Your task to perform on an android device: Add "macbook pro 15 inch" to the cart on target.com, then select checkout. Image 0: 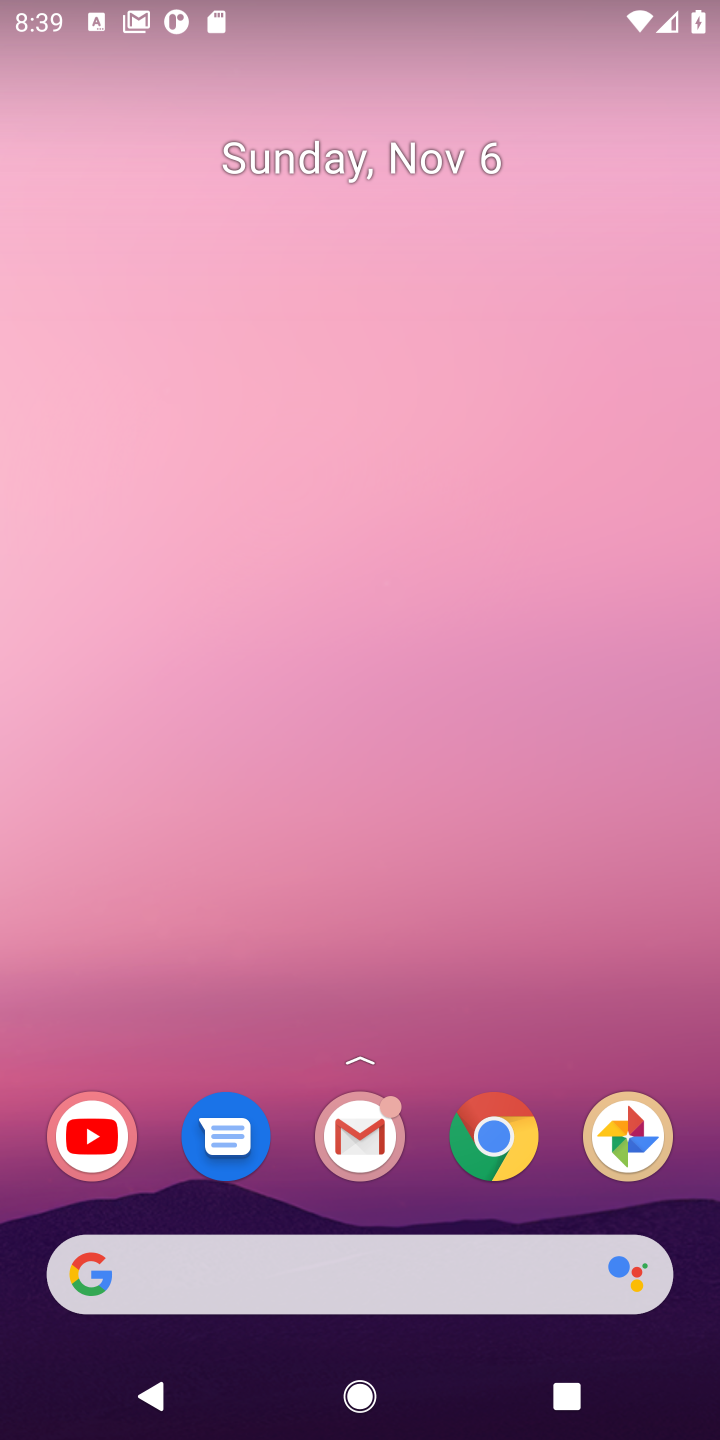
Step 0: click (410, 1266)
Your task to perform on an android device: Add "macbook pro 15 inch" to the cart on target.com, then select checkout. Image 1: 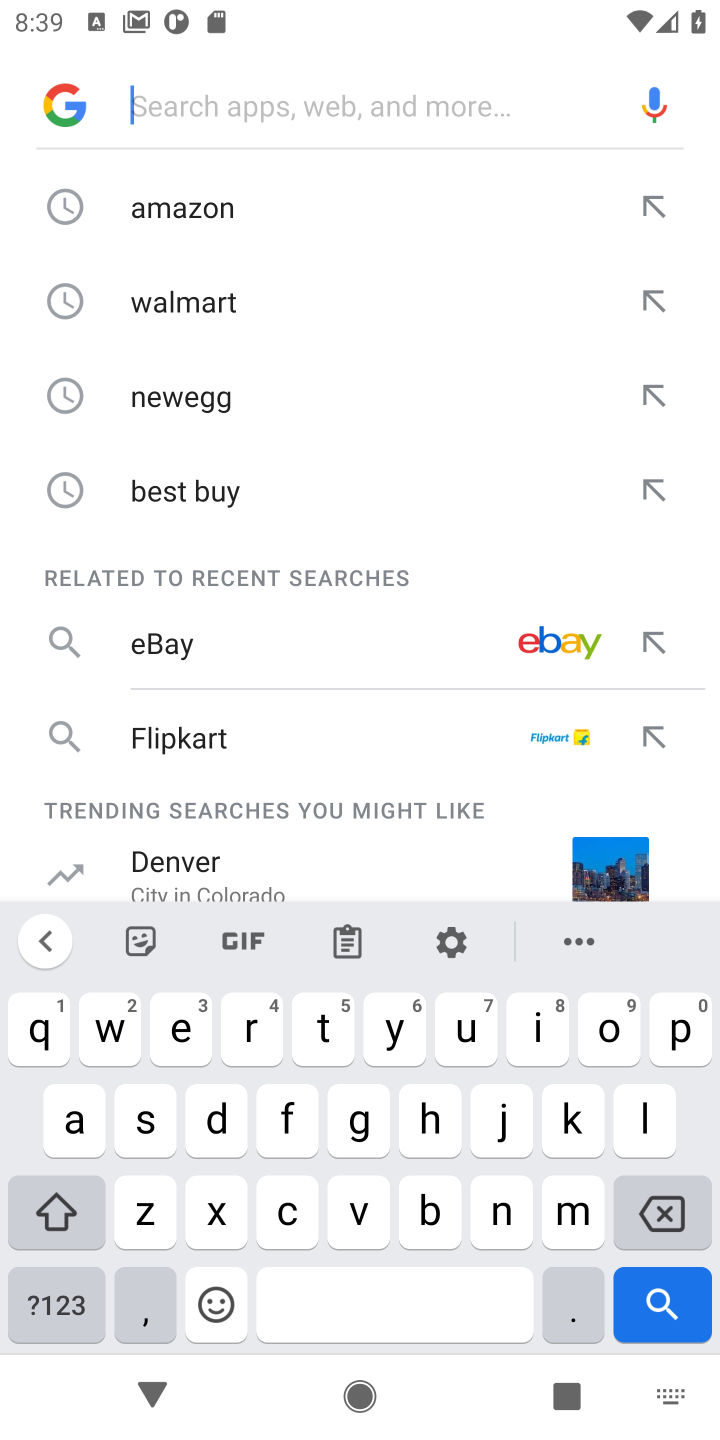
Step 1: type "target"
Your task to perform on an android device: Add "macbook pro 15 inch" to the cart on target.com, then select checkout. Image 2: 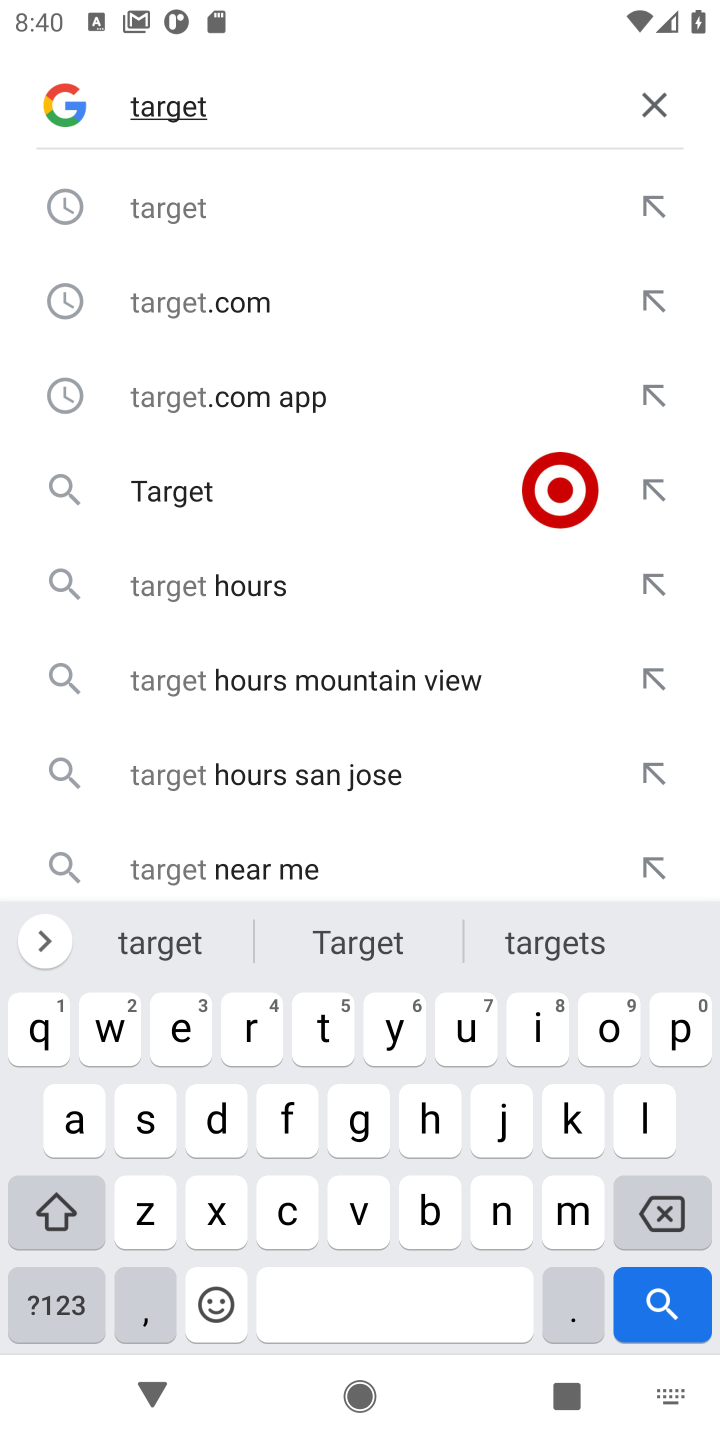
Step 2: click (216, 231)
Your task to perform on an android device: Add "macbook pro 15 inch" to the cart on target.com, then select checkout. Image 3: 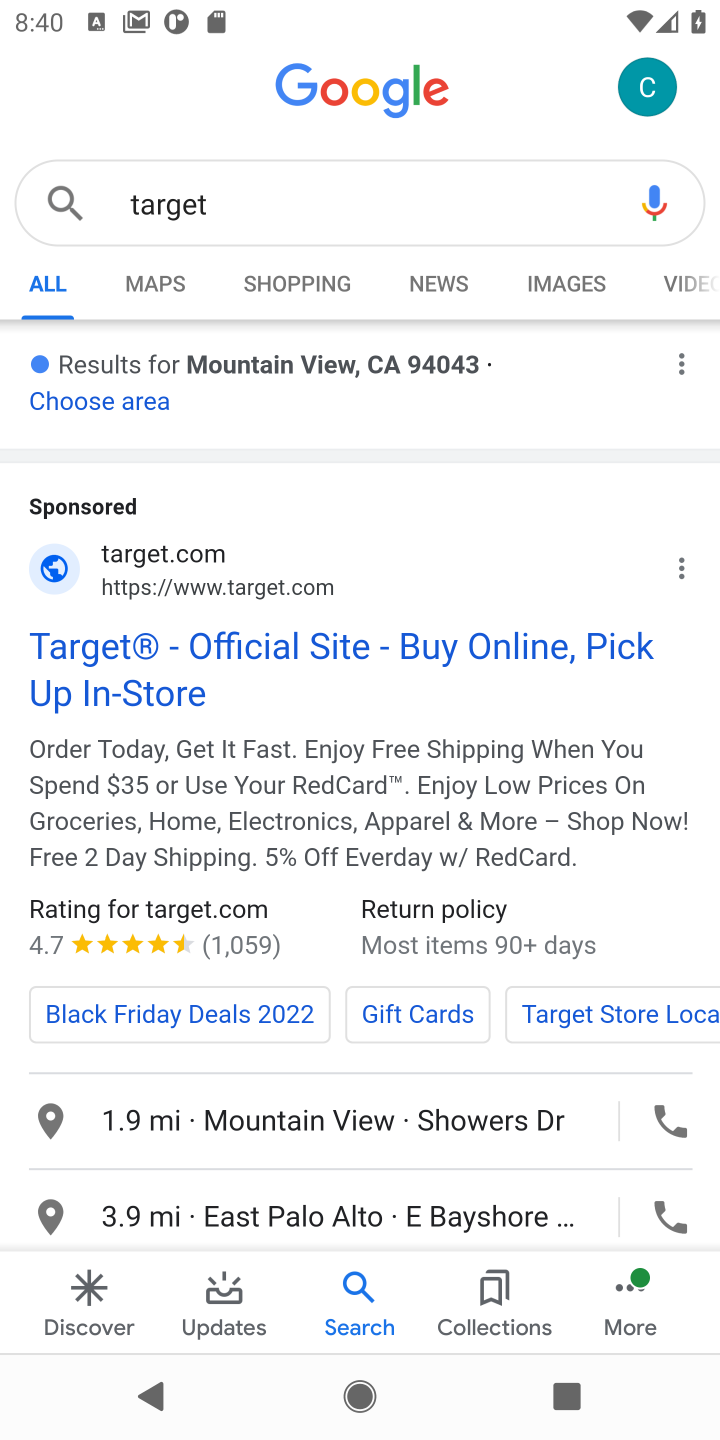
Step 3: click (238, 661)
Your task to perform on an android device: Add "macbook pro 15 inch" to the cart on target.com, then select checkout. Image 4: 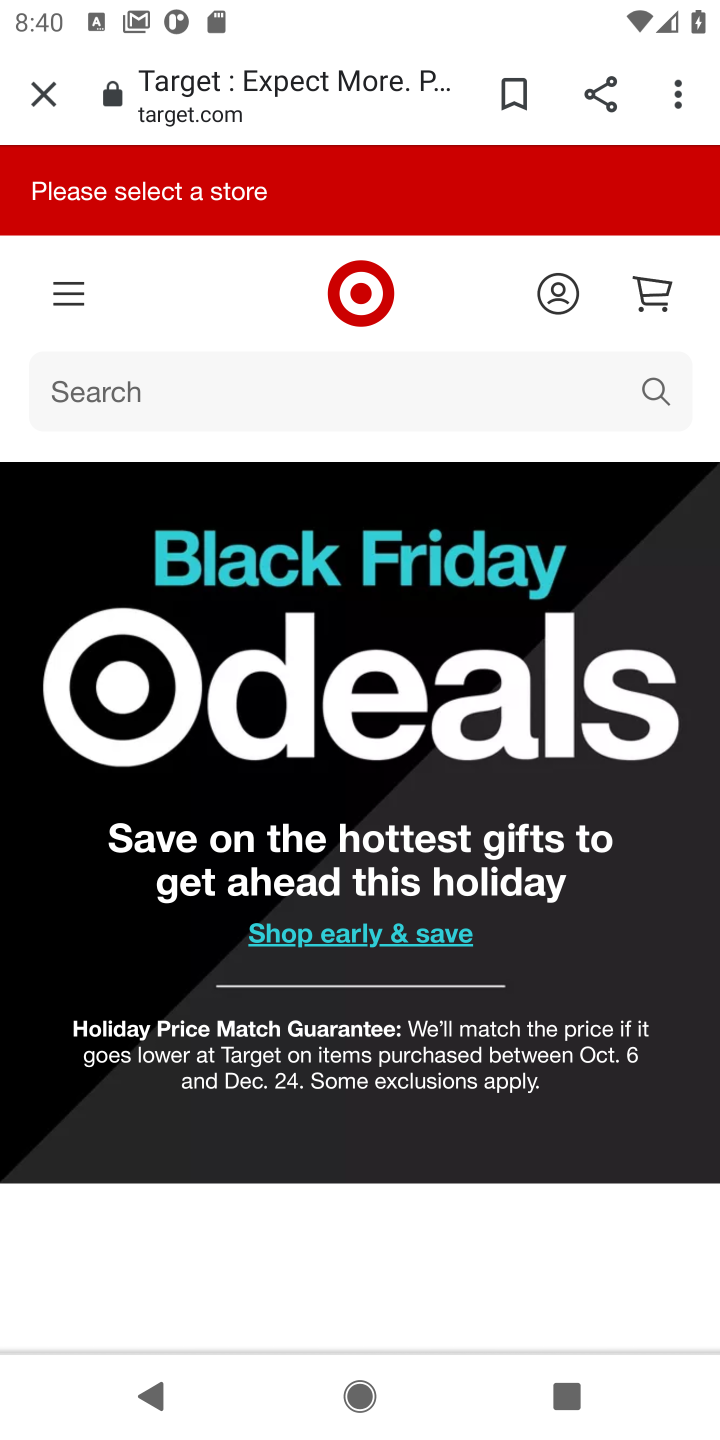
Step 4: click (417, 421)
Your task to perform on an android device: Add "macbook pro 15 inch" to the cart on target.com, then select checkout. Image 5: 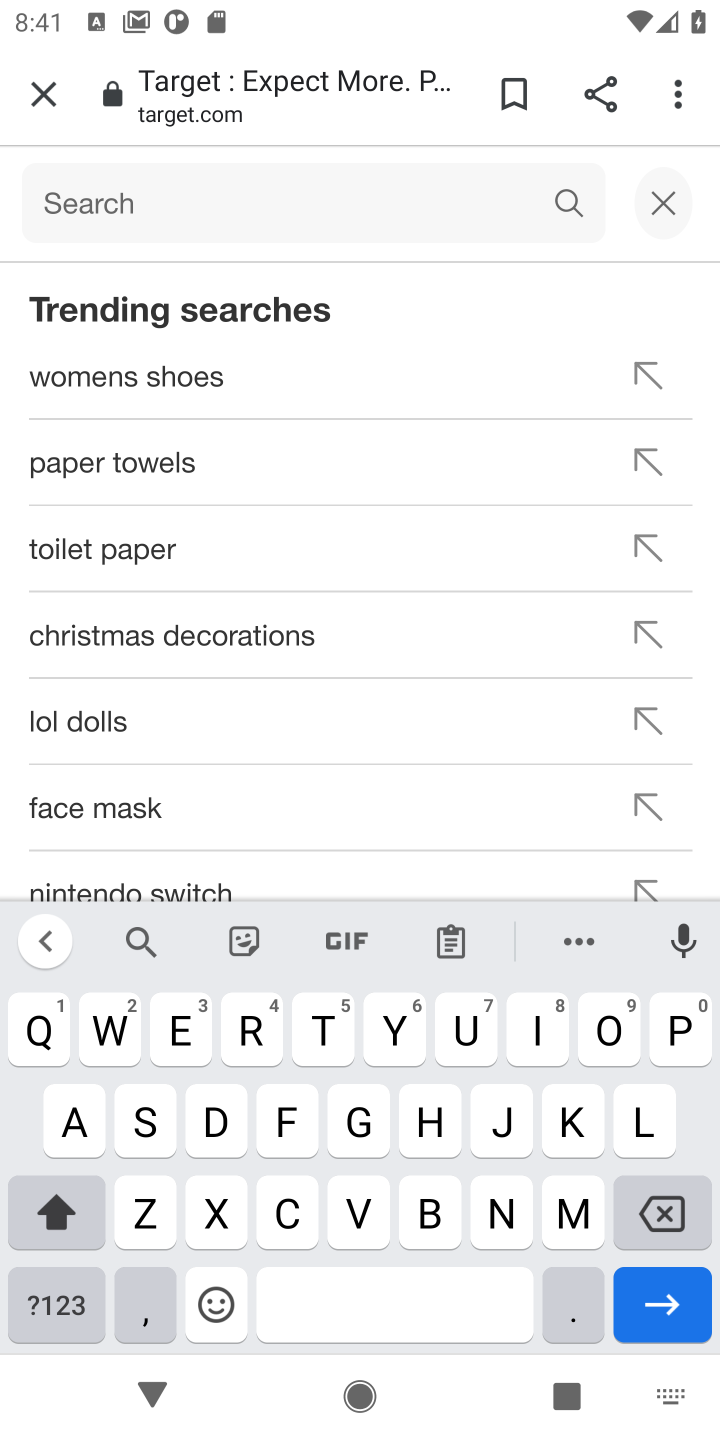
Step 5: type "macbook pro 15"
Your task to perform on an android device: Add "macbook pro 15 inch" to the cart on target.com, then select checkout. Image 6: 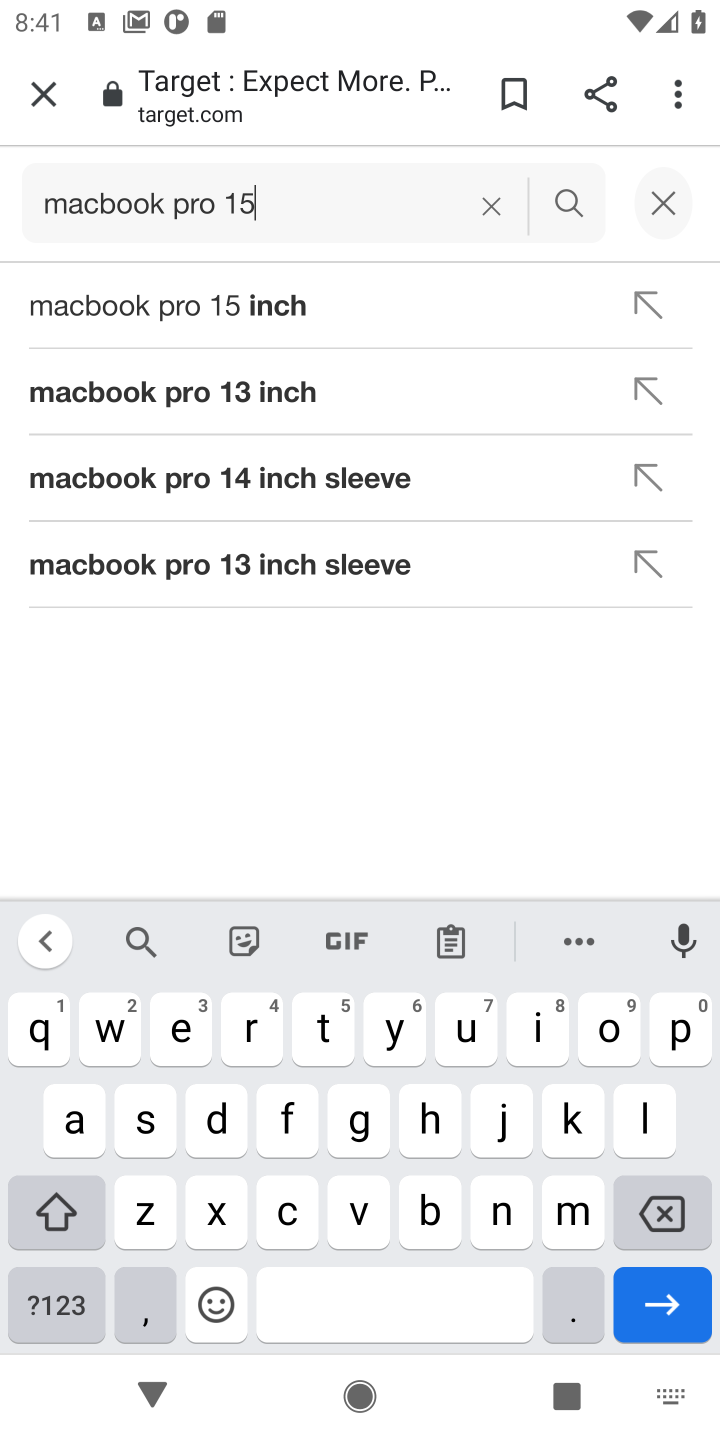
Step 6: click (214, 334)
Your task to perform on an android device: Add "macbook pro 15 inch" to the cart on target.com, then select checkout. Image 7: 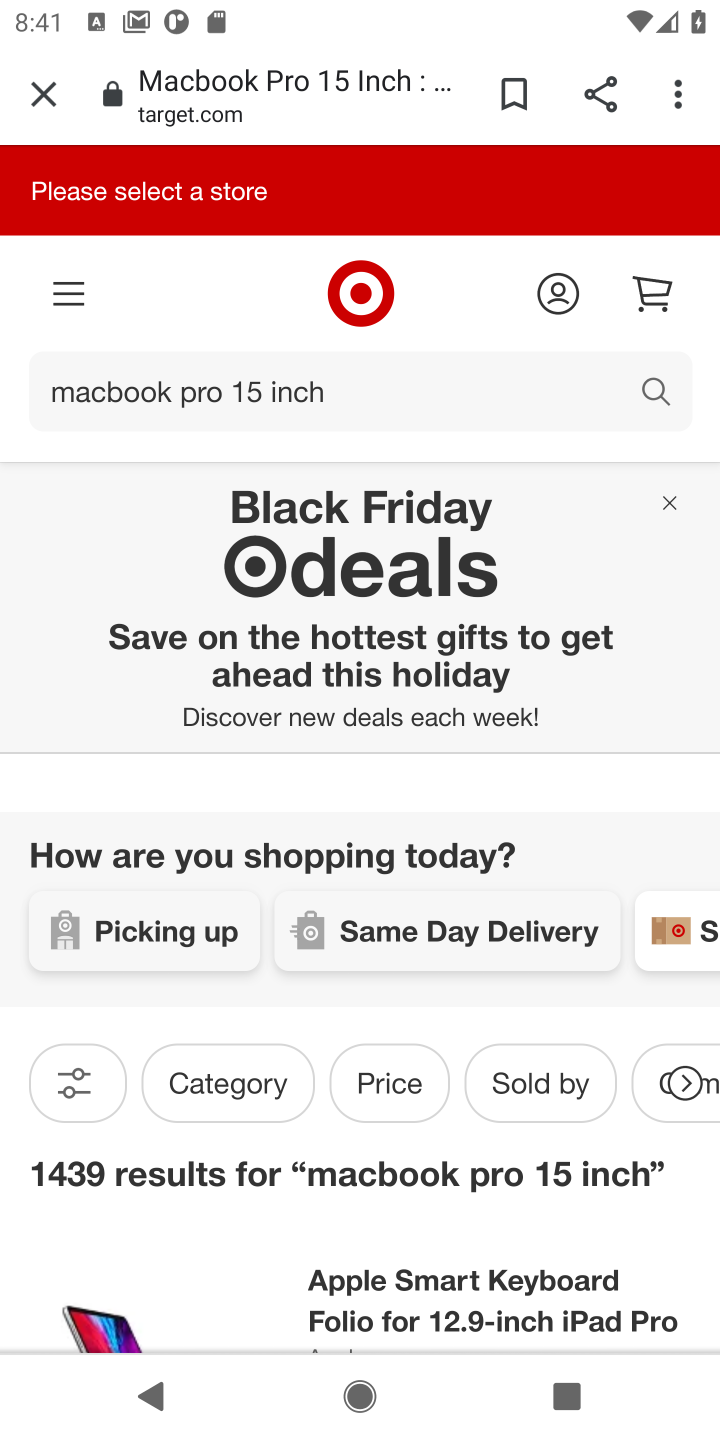
Step 7: task complete